Your task to perform on an android device: turn notification dots on Image 0: 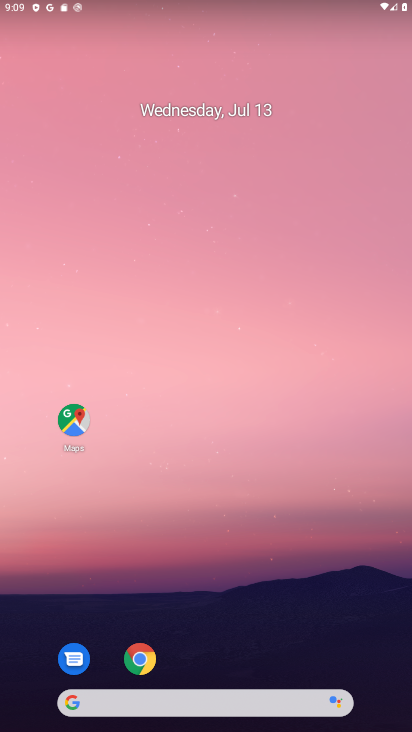
Step 0: drag from (224, 646) to (225, 241)
Your task to perform on an android device: turn notification dots on Image 1: 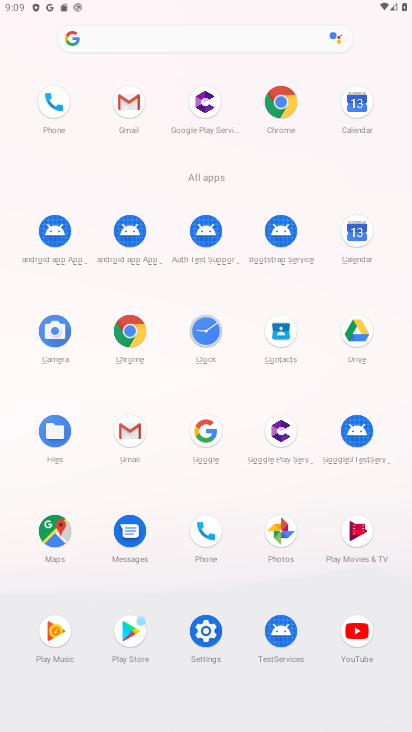
Step 1: click (210, 632)
Your task to perform on an android device: turn notification dots on Image 2: 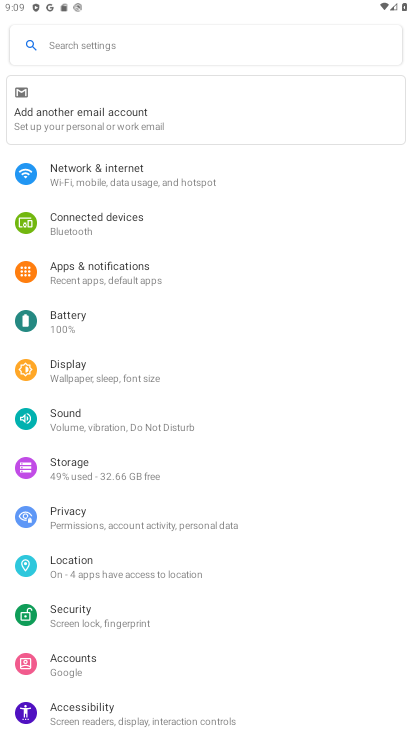
Step 2: click (267, 33)
Your task to perform on an android device: turn notification dots on Image 3: 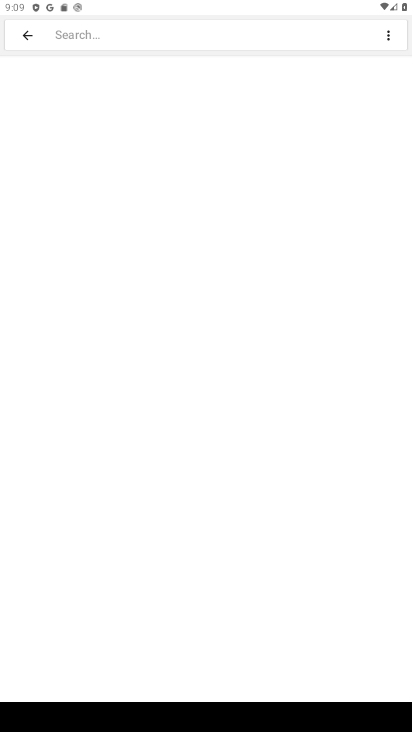
Step 3: type " notification dots  "
Your task to perform on an android device: turn notification dots on Image 4: 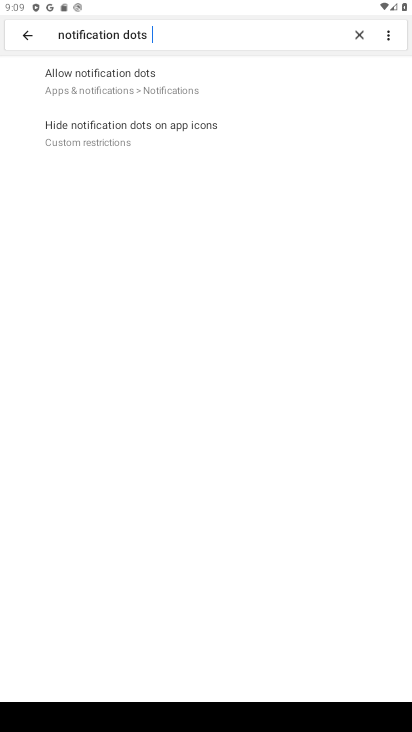
Step 4: click (86, 70)
Your task to perform on an android device: turn notification dots on Image 5: 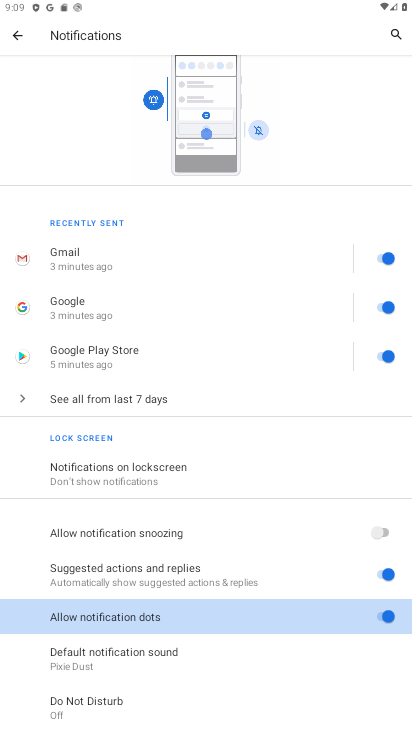
Step 5: task complete